Your task to perform on an android device: turn on the 12-hour format for clock Image 0: 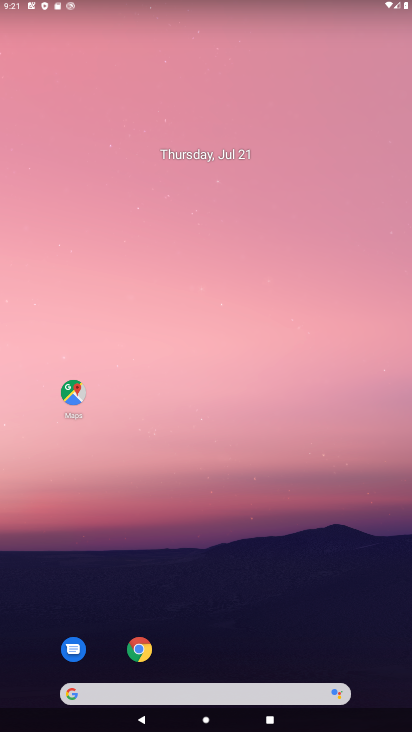
Step 0: drag from (210, 607) to (210, 64)
Your task to perform on an android device: turn on the 12-hour format for clock Image 1: 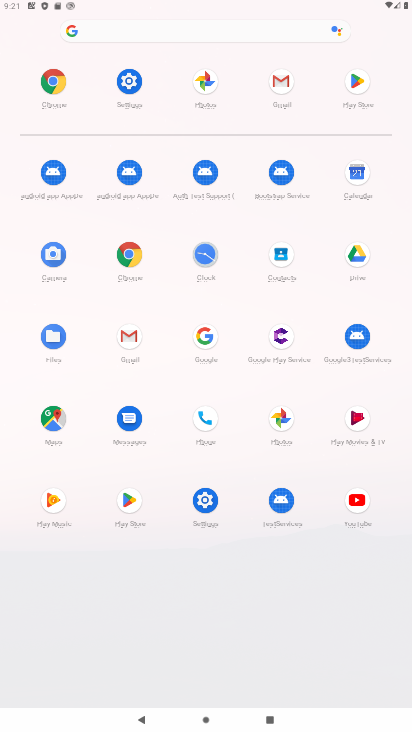
Step 1: click (193, 503)
Your task to perform on an android device: turn on the 12-hour format for clock Image 2: 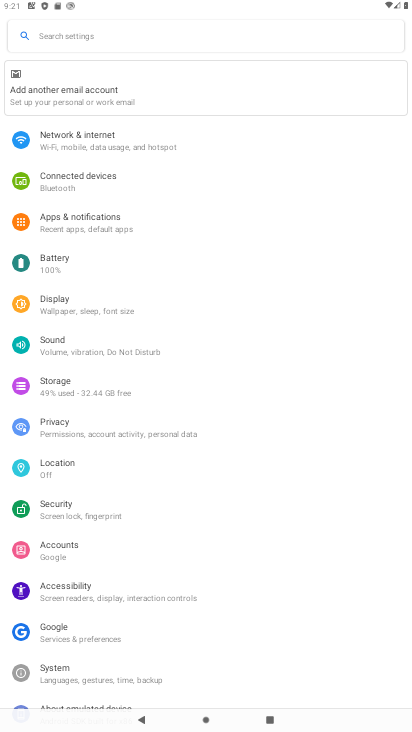
Step 2: drag from (88, 642) to (110, 522)
Your task to perform on an android device: turn on the 12-hour format for clock Image 3: 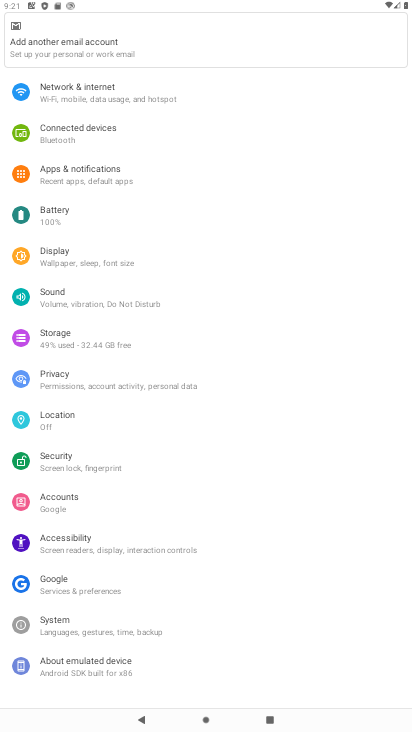
Step 3: click (76, 635)
Your task to perform on an android device: turn on the 12-hour format for clock Image 4: 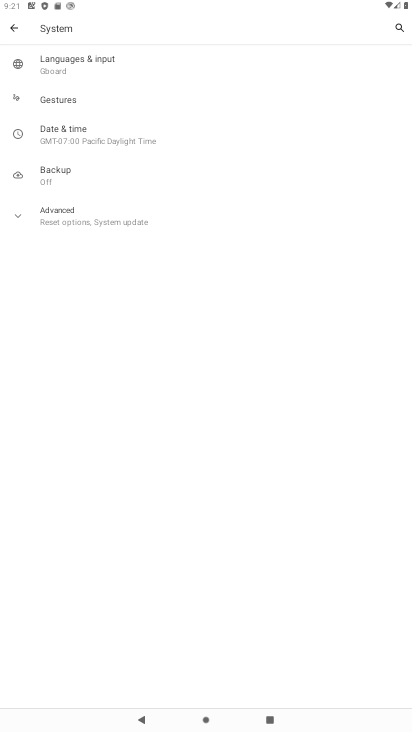
Step 4: click (93, 139)
Your task to perform on an android device: turn on the 12-hour format for clock Image 5: 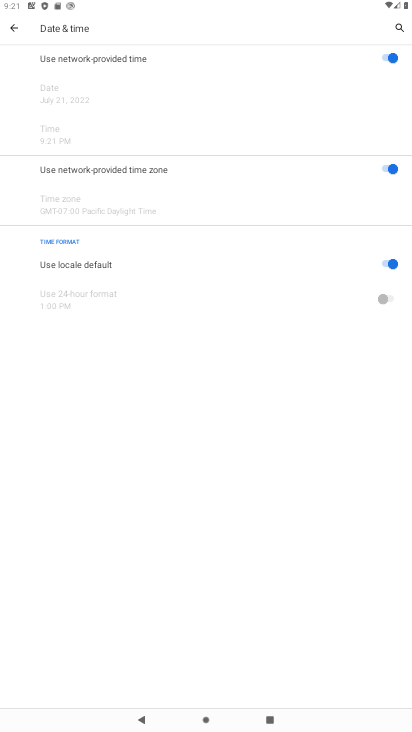
Step 5: task complete